Your task to perform on an android device: Open accessibility settings Image 0: 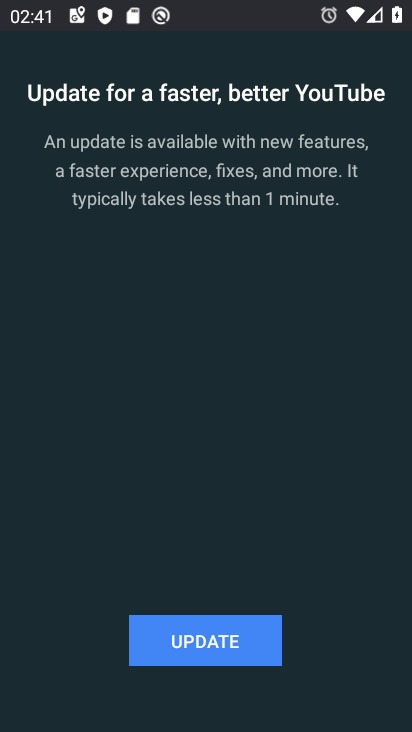
Step 0: press home button
Your task to perform on an android device: Open accessibility settings Image 1: 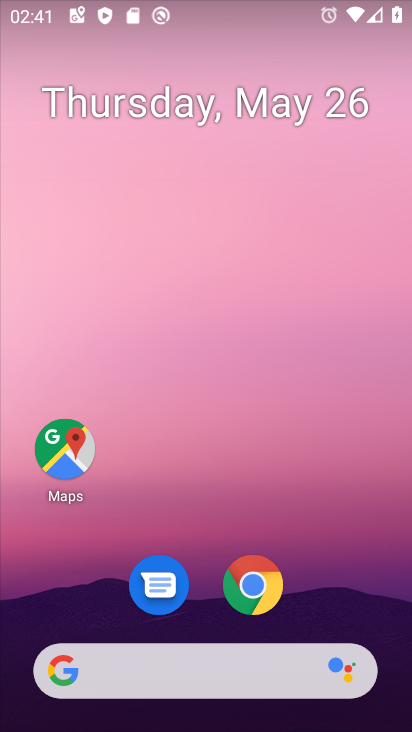
Step 1: drag from (246, 509) to (220, 66)
Your task to perform on an android device: Open accessibility settings Image 2: 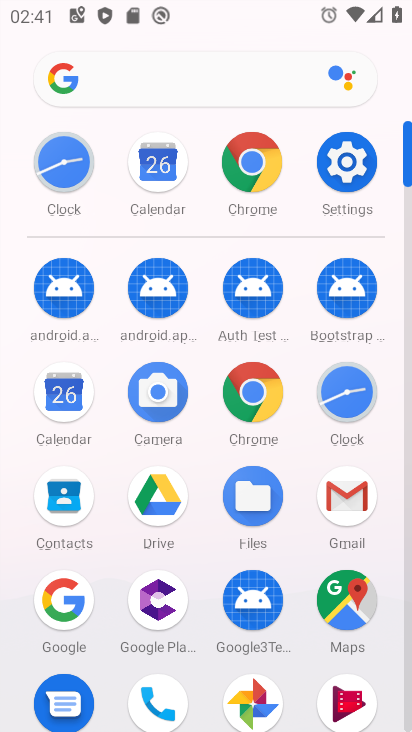
Step 2: click (337, 171)
Your task to perform on an android device: Open accessibility settings Image 3: 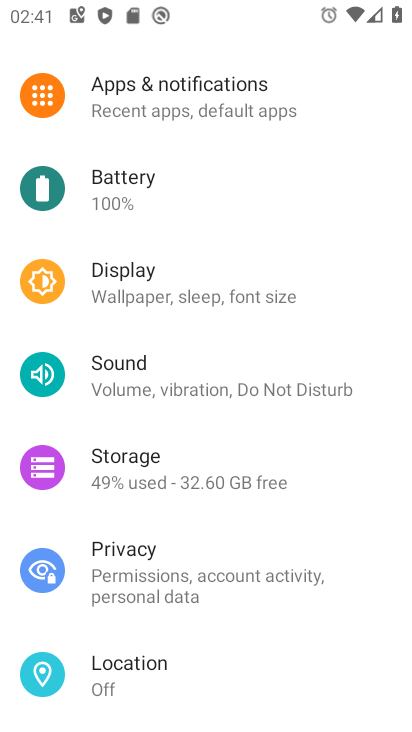
Step 3: drag from (270, 582) to (242, 83)
Your task to perform on an android device: Open accessibility settings Image 4: 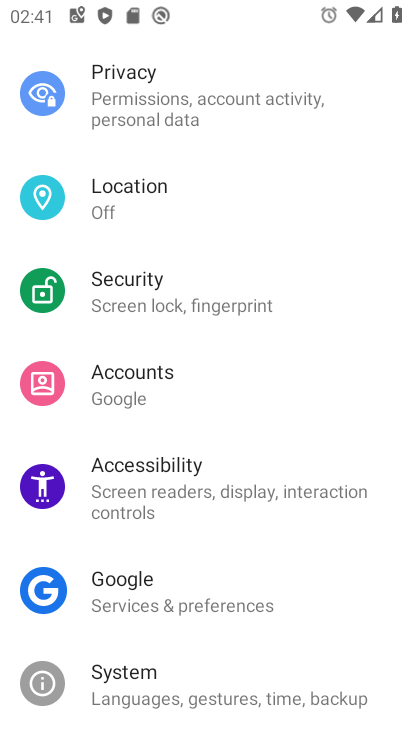
Step 4: click (237, 483)
Your task to perform on an android device: Open accessibility settings Image 5: 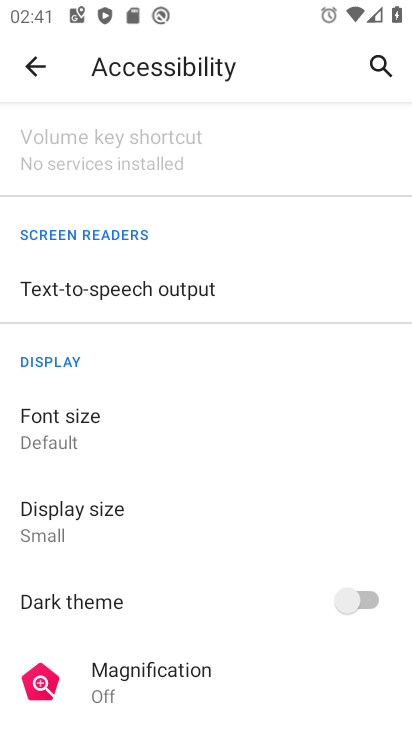
Step 5: task complete